Your task to perform on an android device: Open the Play Movies app and select the watchlist tab. Image 0: 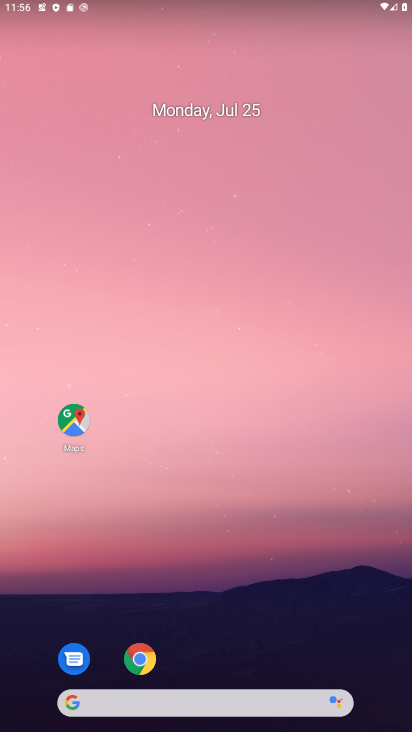
Step 0: drag from (191, 679) to (232, 55)
Your task to perform on an android device: Open the Play Movies app and select the watchlist tab. Image 1: 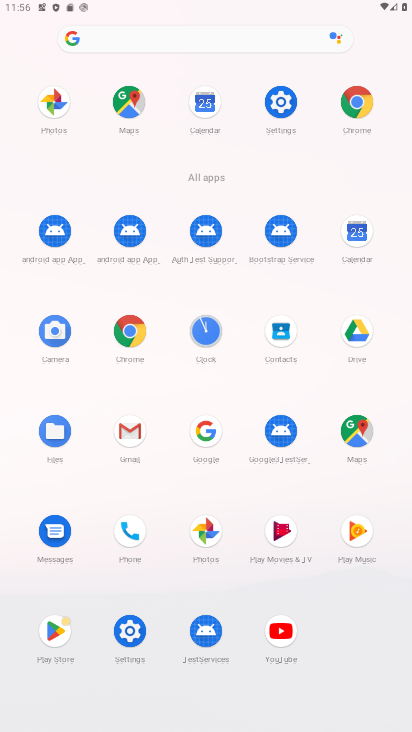
Step 1: click (279, 530)
Your task to perform on an android device: Open the Play Movies app and select the watchlist tab. Image 2: 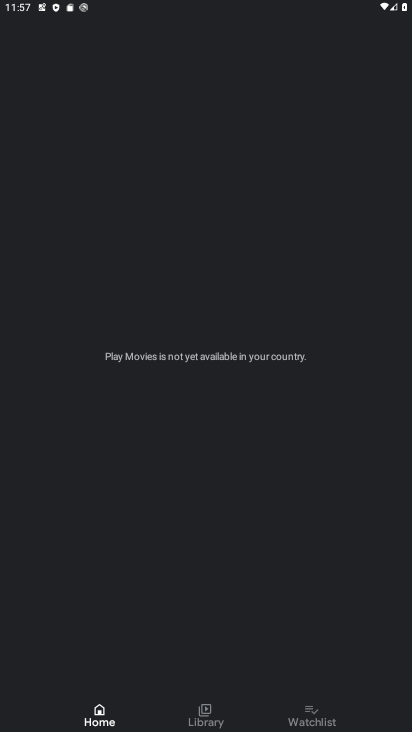
Step 2: click (315, 446)
Your task to perform on an android device: Open the Play Movies app and select the watchlist tab. Image 3: 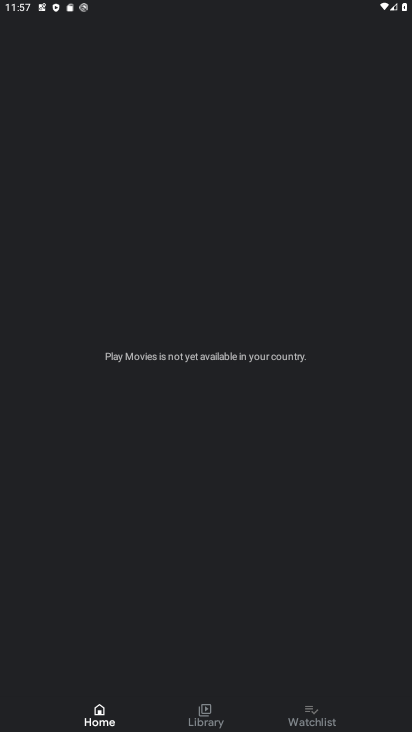
Step 3: click (310, 709)
Your task to perform on an android device: Open the Play Movies app and select the watchlist tab. Image 4: 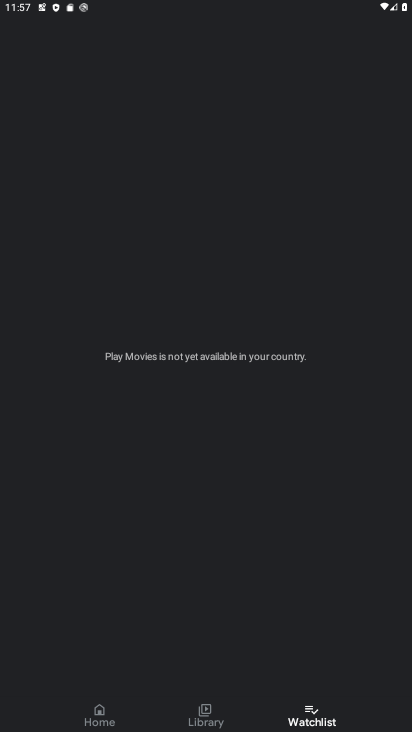
Step 4: task complete